Your task to perform on an android device: see creations saved in the google photos Image 0: 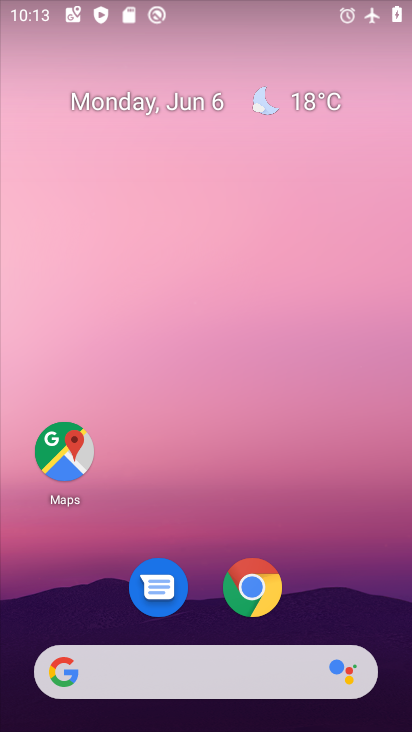
Step 0: drag from (346, 541) to (333, 144)
Your task to perform on an android device: see creations saved in the google photos Image 1: 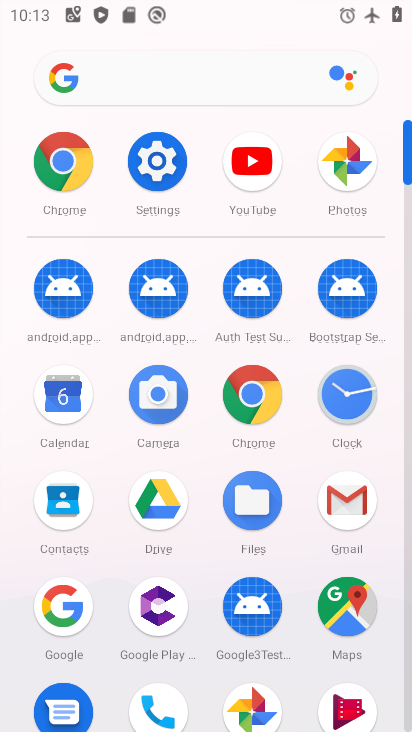
Step 1: click (246, 704)
Your task to perform on an android device: see creations saved in the google photos Image 2: 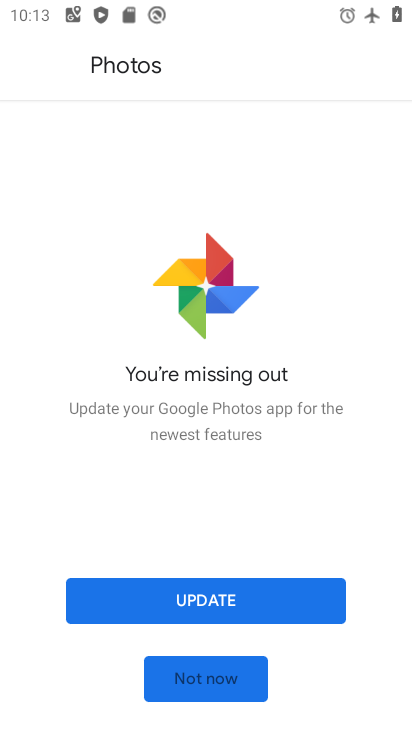
Step 2: click (224, 600)
Your task to perform on an android device: see creations saved in the google photos Image 3: 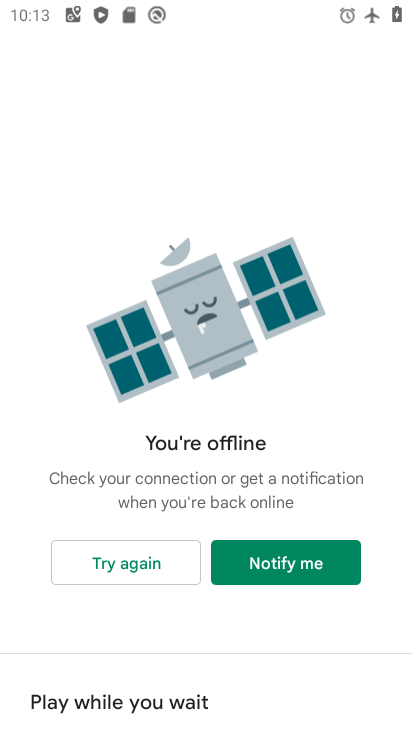
Step 3: task complete